Your task to perform on an android device: Open notification settings Image 0: 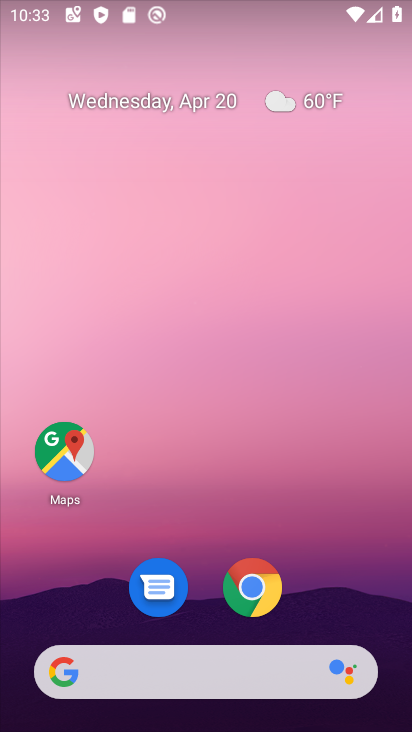
Step 0: drag from (212, 615) to (235, 12)
Your task to perform on an android device: Open notification settings Image 1: 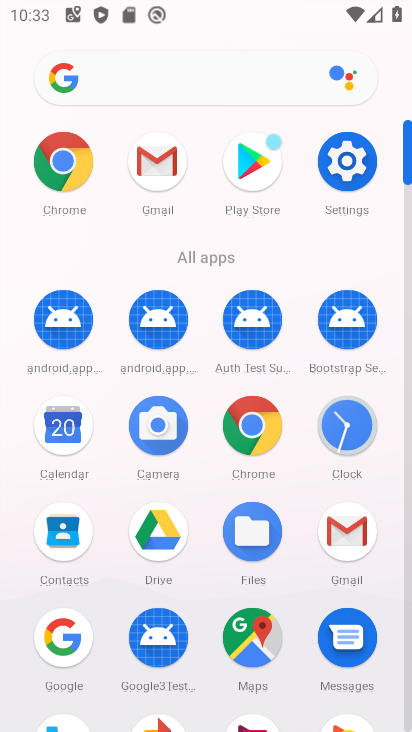
Step 1: click (345, 156)
Your task to perform on an android device: Open notification settings Image 2: 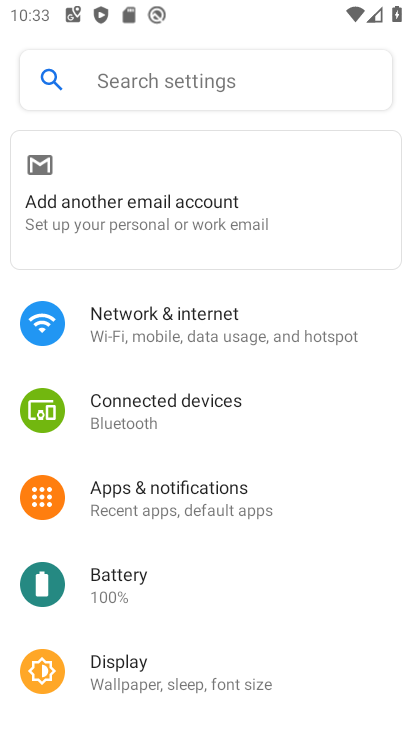
Step 2: click (254, 489)
Your task to perform on an android device: Open notification settings Image 3: 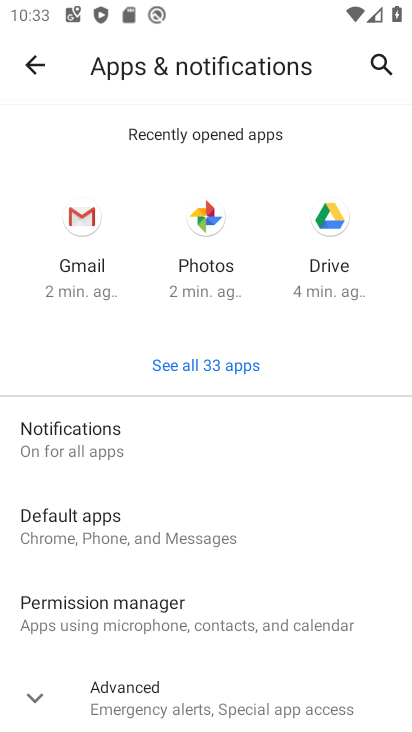
Step 3: click (138, 435)
Your task to perform on an android device: Open notification settings Image 4: 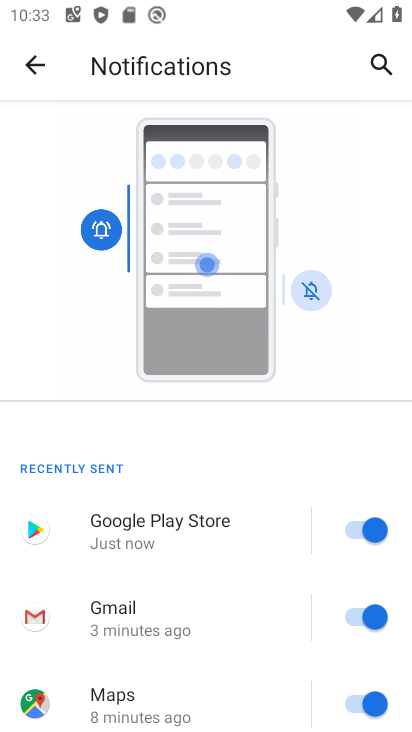
Step 4: drag from (234, 647) to (267, 168)
Your task to perform on an android device: Open notification settings Image 5: 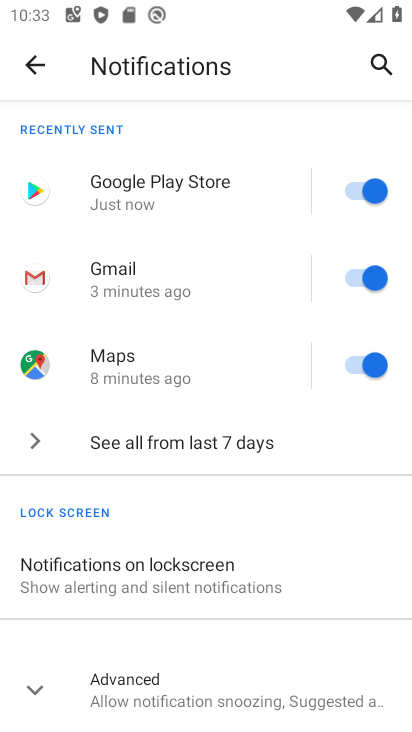
Step 5: click (363, 195)
Your task to perform on an android device: Open notification settings Image 6: 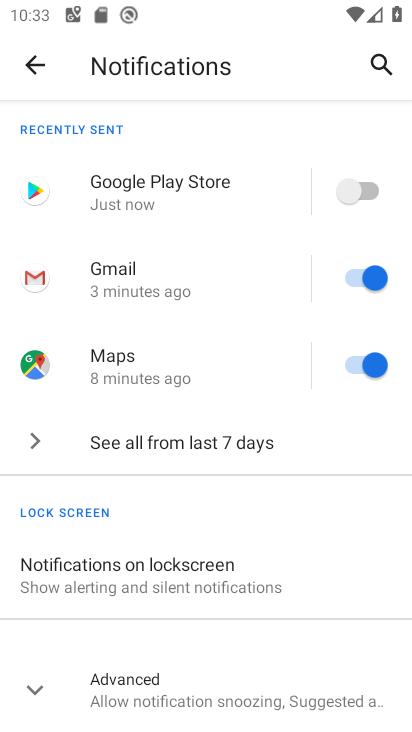
Step 6: click (364, 276)
Your task to perform on an android device: Open notification settings Image 7: 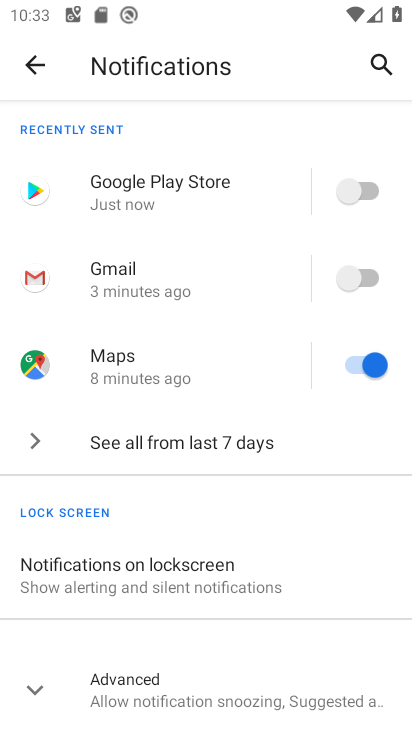
Step 7: click (366, 364)
Your task to perform on an android device: Open notification settings Image 8: 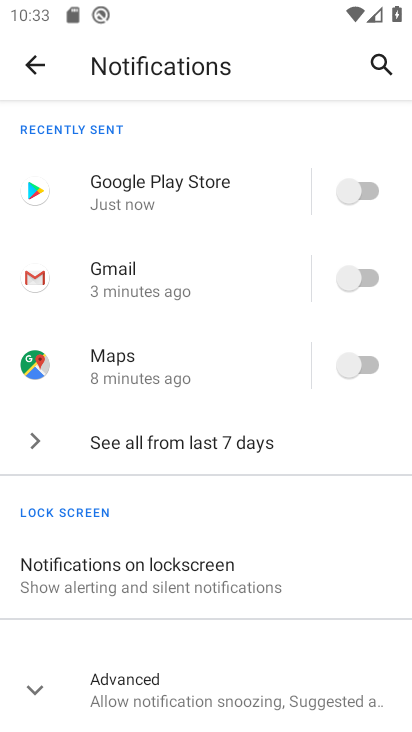
Step 8: click (201, 570)
Your task to perform on an android device: Open notification settings Image 9: 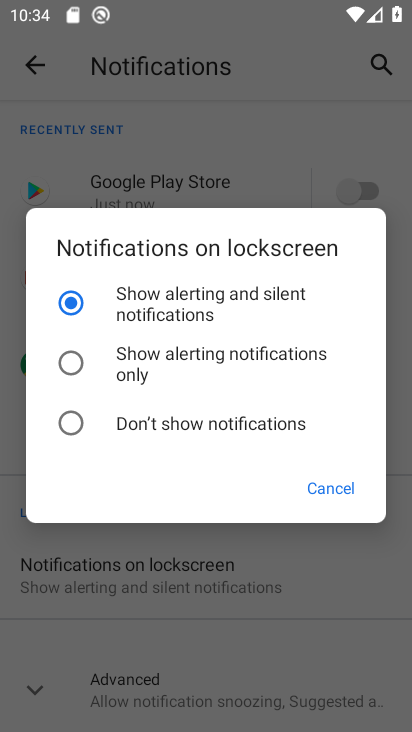
Step 9: click (74, 362)
Your task to perform on an android device: Open notification settings Image 10: 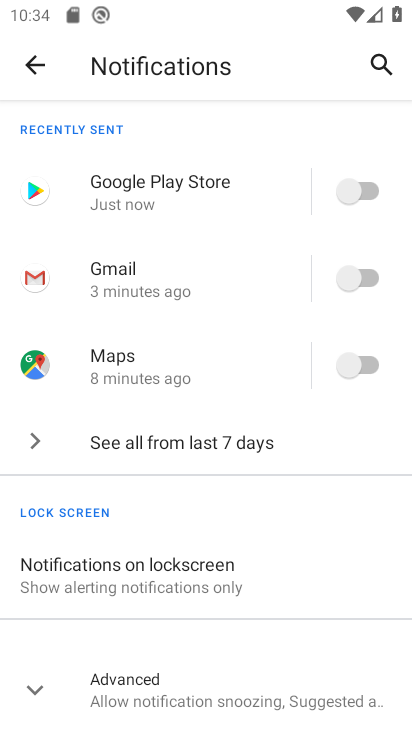
Step 10: task complete